Your task to perform on an android device: change your default location settings in chrome Image 0: 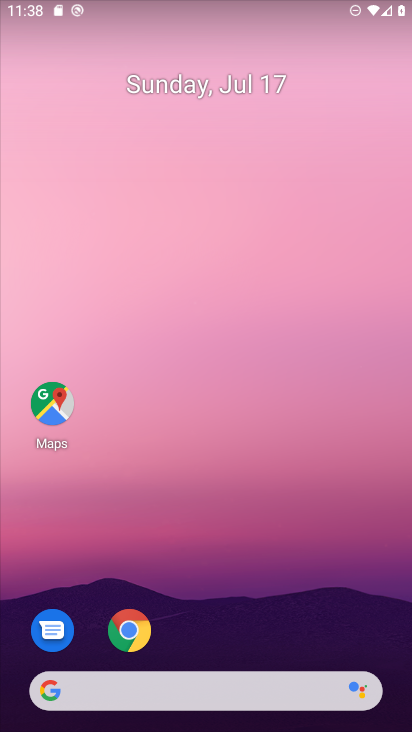
Step 0: click (128, 632)
Your task to perform on an android device: change your default location settings in chrome Image 1: 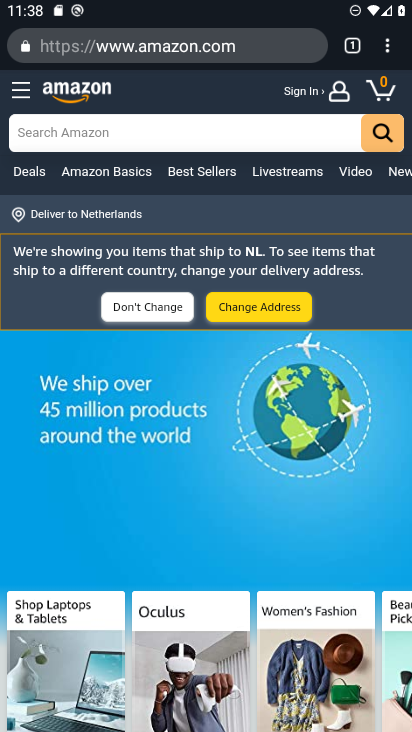
Step 1: click (390, 45)
Your task to perform on an android device: change your default location settings in chrome Image 2: 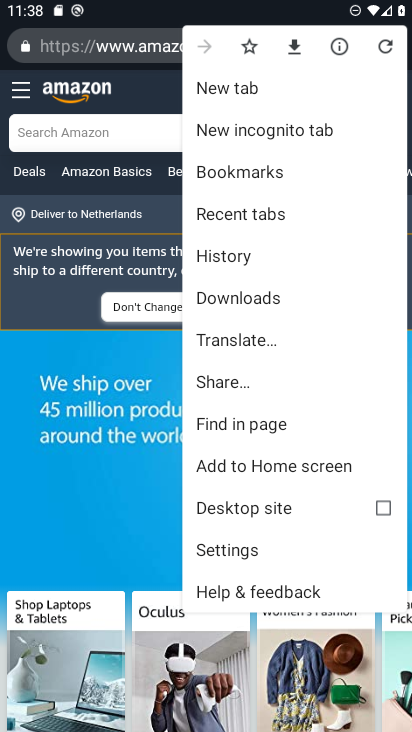
Step 2: click (250, 555)
Your task to perform on an android device: change your default location settings in chrome Image 3: 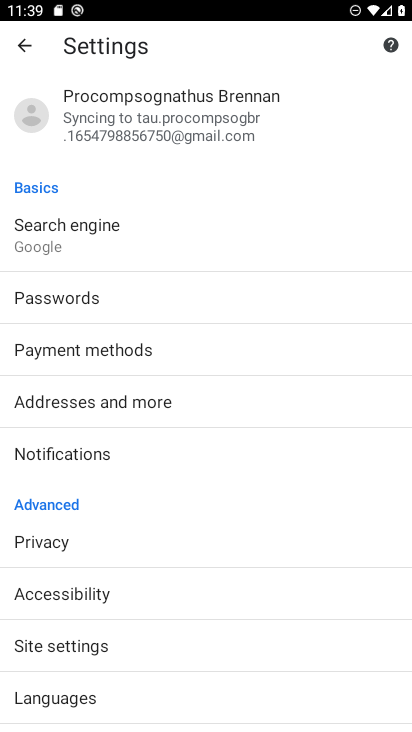
Step 3: click (101, 654)
Your task to perform on an android device: change your default location settings in chrome Image 4: 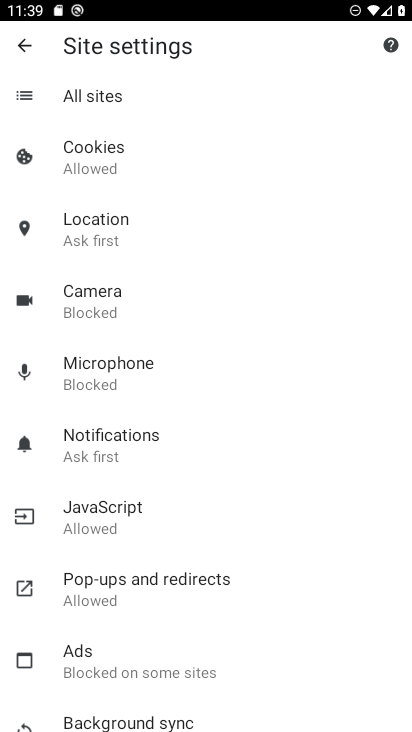
Step 4: click (96, 215)
Your task to perform on an android device: change your default location settings in chrome Image 5: 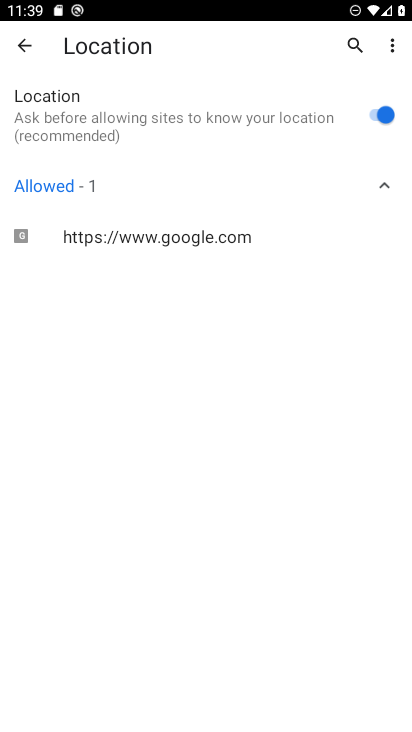
Step 5: click (364, 110)
Your task to perform on an android device: change your default location settings in chrome Image 6: 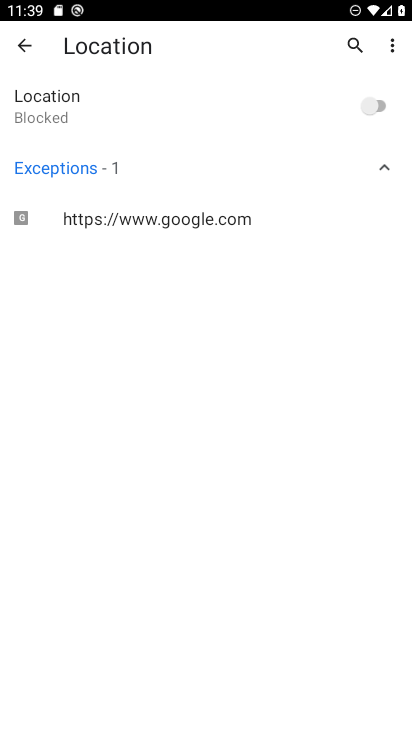
Step 6: task complete